Your task to perform on an android device: check google app version Image 0: 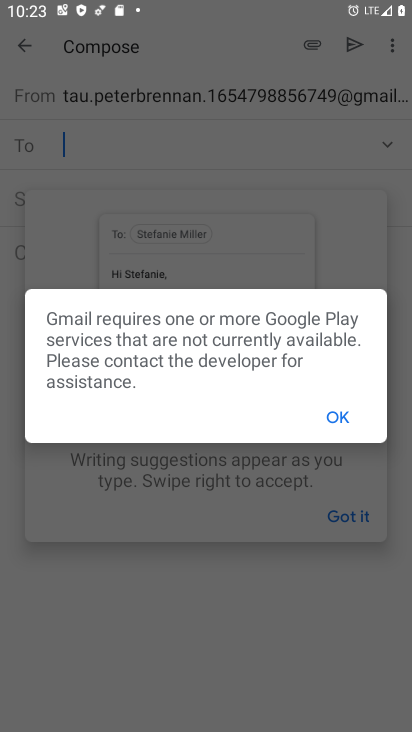
Step 0: press home button
Your task to perform on an android device: check google app version Image 1: 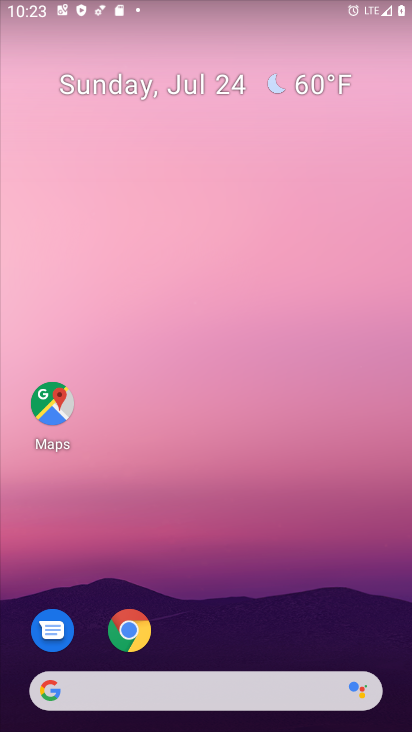
Step 1: click (50, 689)
Your task to perform on an android device: check google app version Image 2: 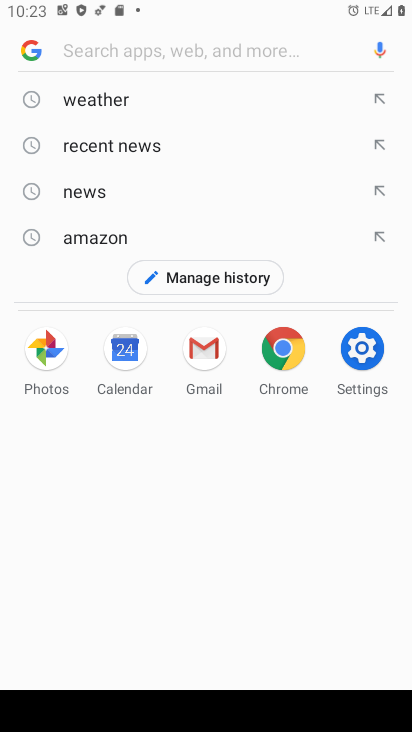
Step 2: click (37, 52)
Your task to perform on an android device: check google app version Image 3: 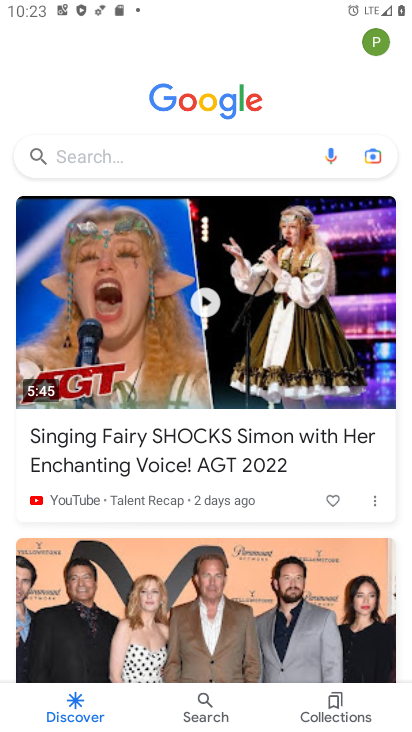
Step 3: click (385, 38)
Your task to perform on an android device: check google app version Image 4: 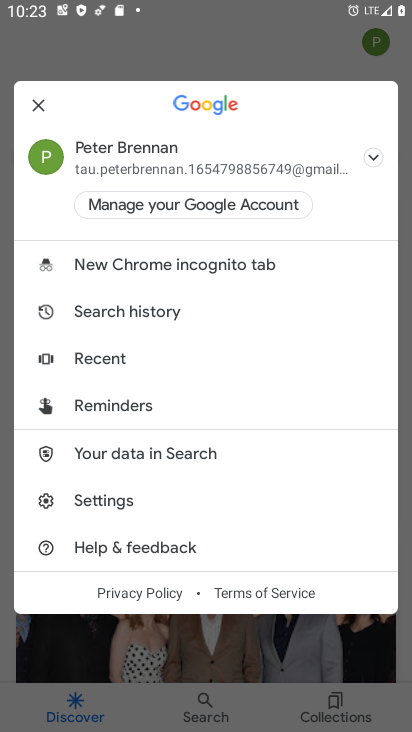
Step 4: click (119, 502)
Your task to perform on an android device: check google app version Image 5: 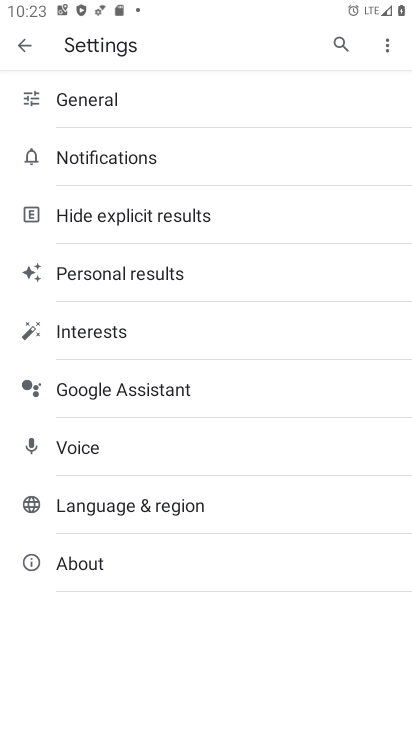
Step 5: click (116, 557)
Your task to perform on an android device: check google app version Image 6: 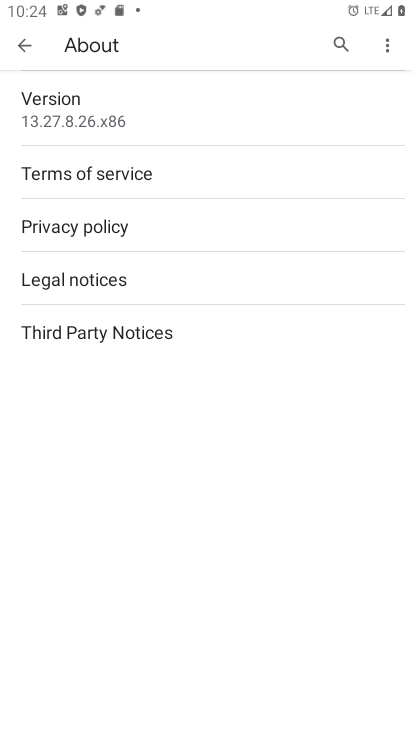
Step 6: task complete